Your task to perform on an android device: open device folders in google photos Image 0: 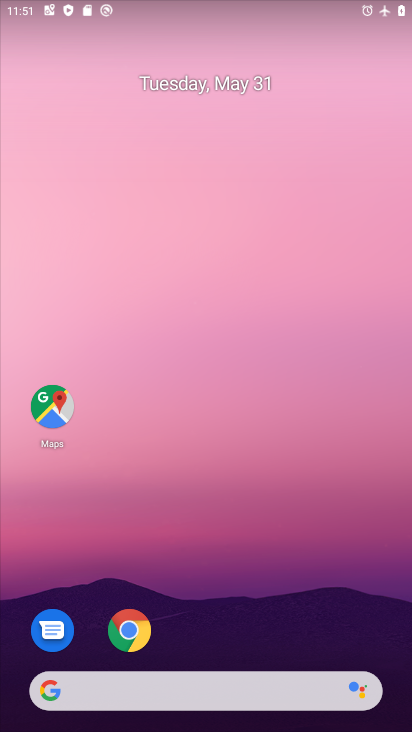
Step 0: drag from (140, 726) to (186, 107)
Your task to perform on an android device: open device folders in google photos Image 1: 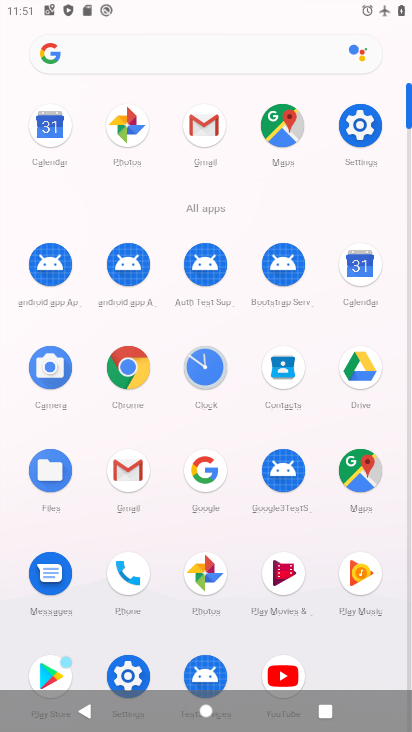
Step 1: click (117, 133)
Your task to perform on an android device: open device folders in google photos Image 2: 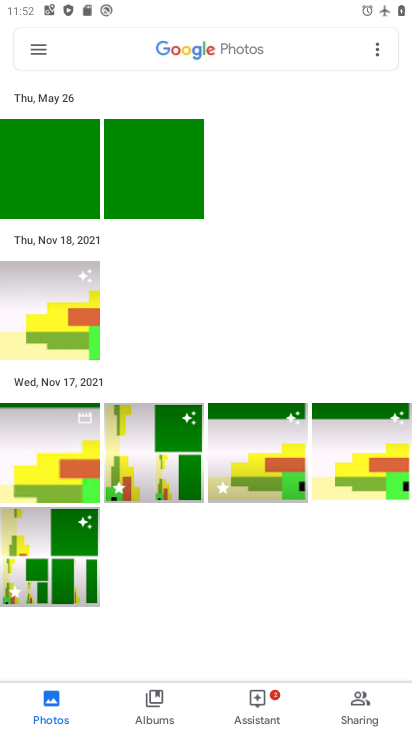
Step 2: click (32, 54)
Your task to perform on an android device: open device folders in google photos Image 3: 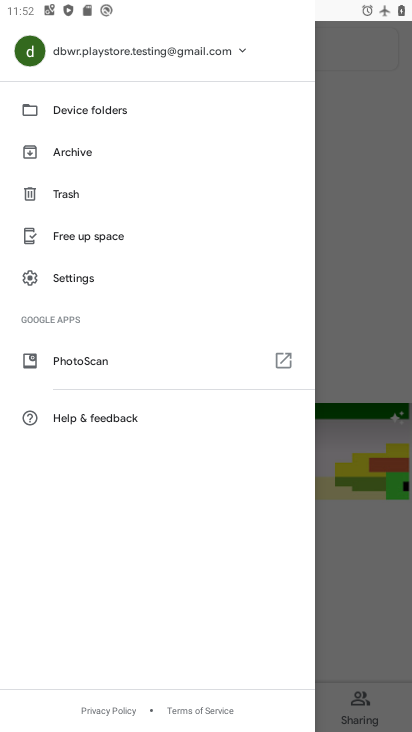
Step 3: click (91, 109)
Your task to perform on an android device: open device folders in google photos Image 4: 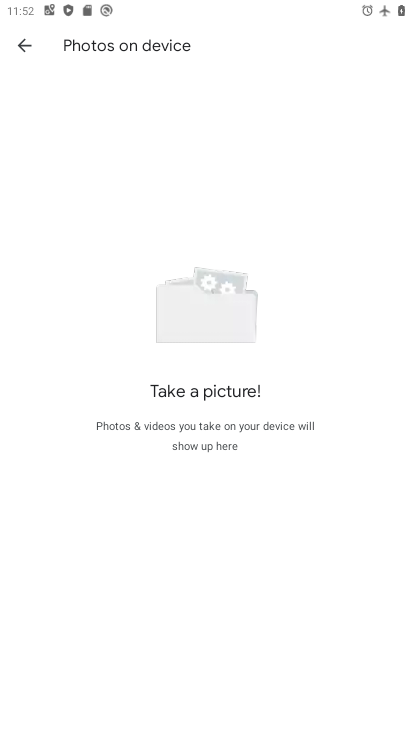
Step 4: task complete